Your task to perform on an android device: find which apps use the phone's location Image 0: 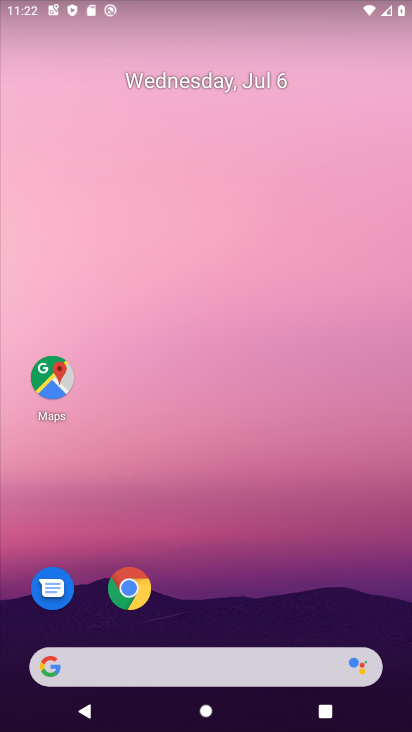
Step 0: drag from (233, 631) to (218, 334)
Your task to perform on an android device: find which apps use the phone's location Image 1: 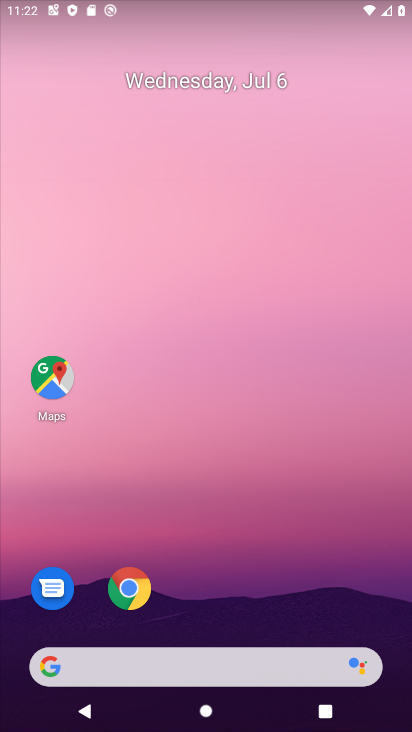
Step 1: drag from (237, 614) to (198, 300)
Your task to perform on an android device: find which apps use the phone's location Image 2: 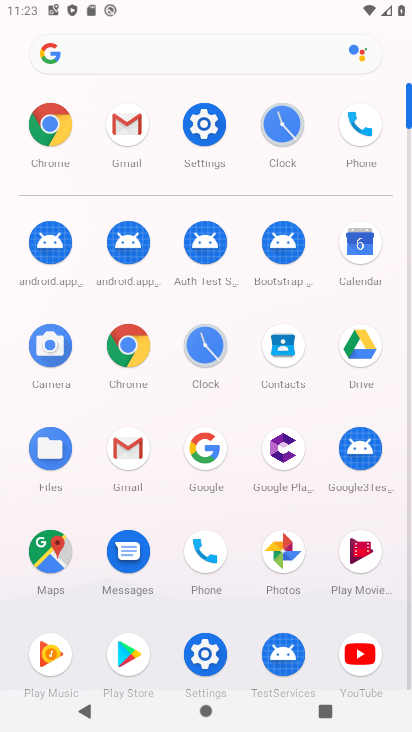
Step 2: click (205, 114)
Your task to perform on an android device: find which apps use the phone's location Image 3: 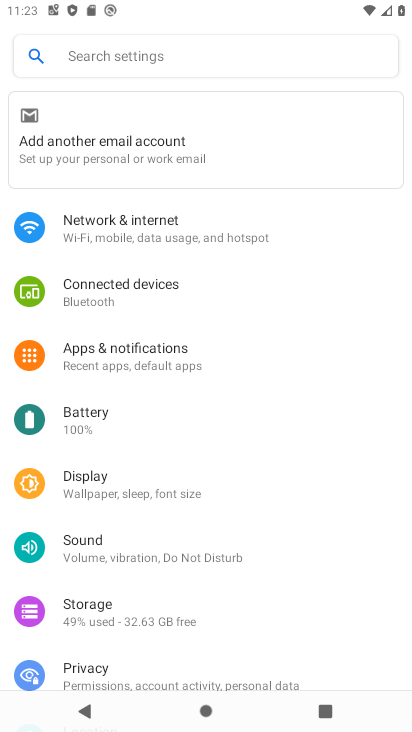
Step 3: drag from (141, 582) to (169, 333)
Your task to perform on an android device: find which apps use the phone's location Image 4: 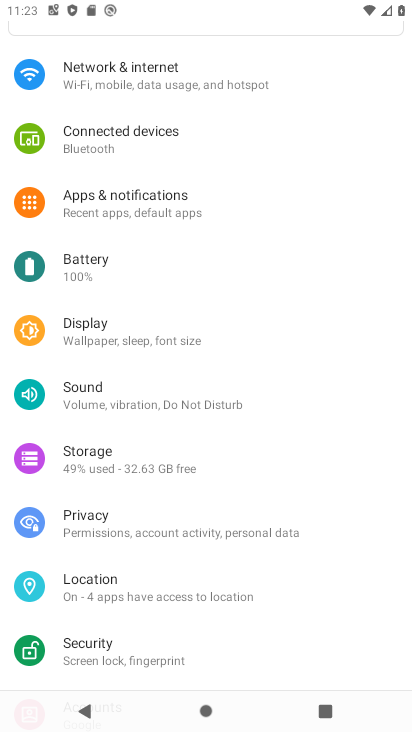
Step 4: click (111, 586)
Your task to perform on an android device: find which apps use the phone's location Image 5: 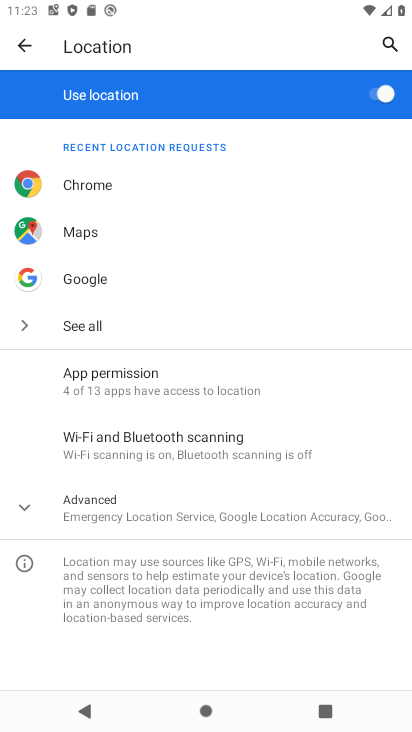
Step 5: task complete